Your task to perform on an android device: What's on my calendar today? Image 0: 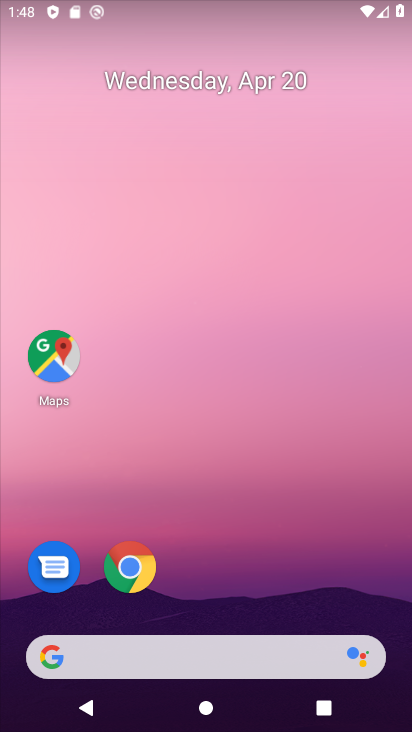
Step 0: click (295, 369)
Your task to perform on an android device: What's on my calendar today? Image 1: 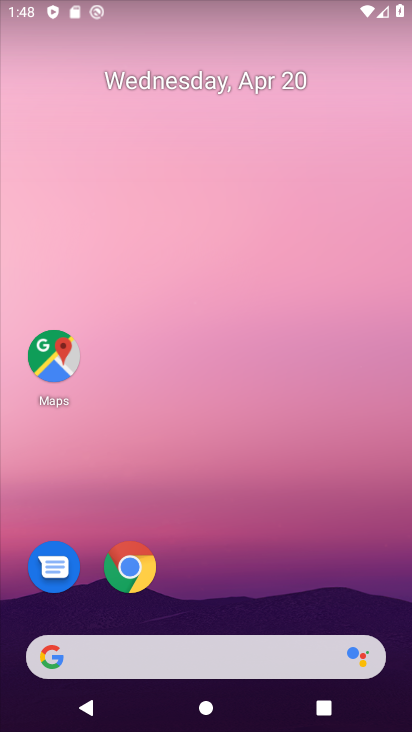
Step 1: drag from (239, 637) to (208, 168)
Your task to perform on an android device: What's on my calendar today? Image 2: 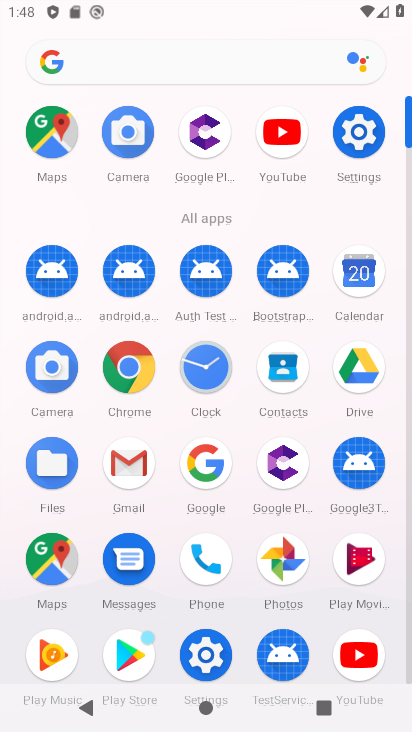
Step 2: click (351, 262)
Your task to perform on an android device: What's on my calendar today? Image 3: 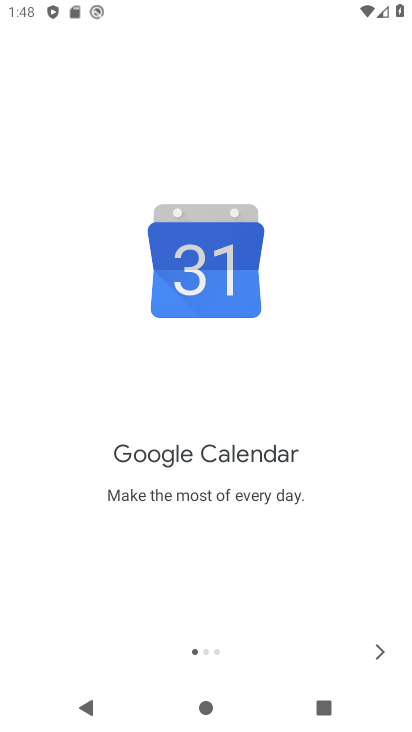
Step 3: click (379, 657)
Your task to perform on an android device: What's on my calendar today? Image 4: 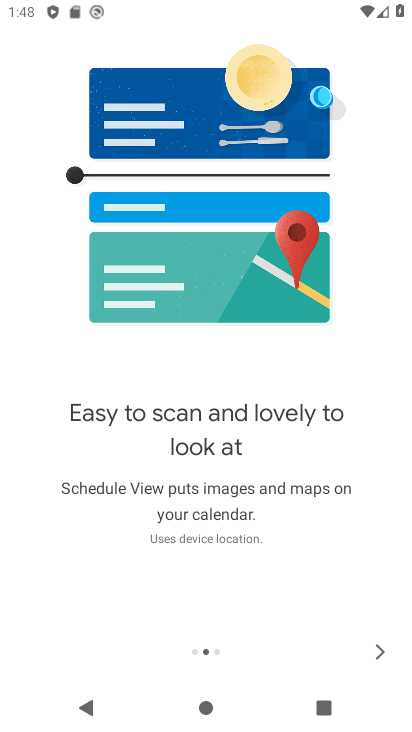
Step 4: click (383, 647)
Your task to perform on an android device: What's on my calendar today? Image 5: 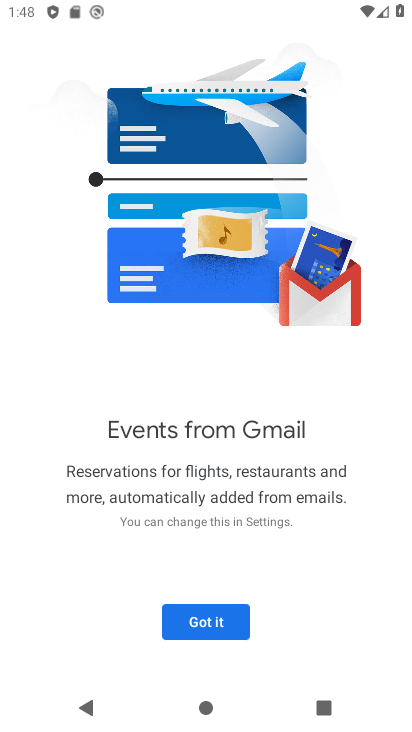
Step 5: click (215, 627)
Your task to perform on an android device: What's on my calendar today? Image 6: 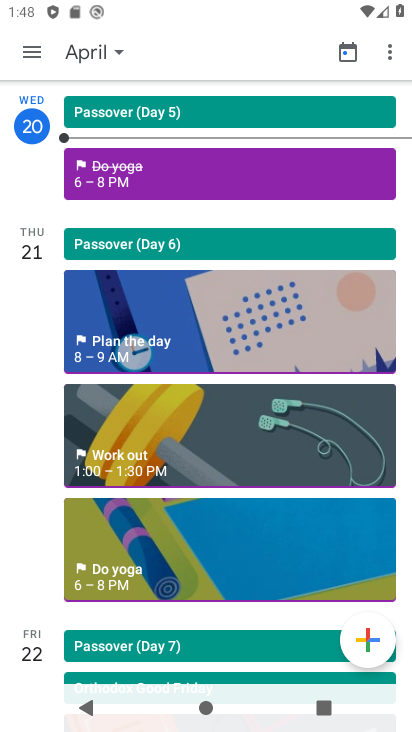
Step 6: click (34, 54)
Your task to perform on an android device: What's on my calendar today? Image 7: 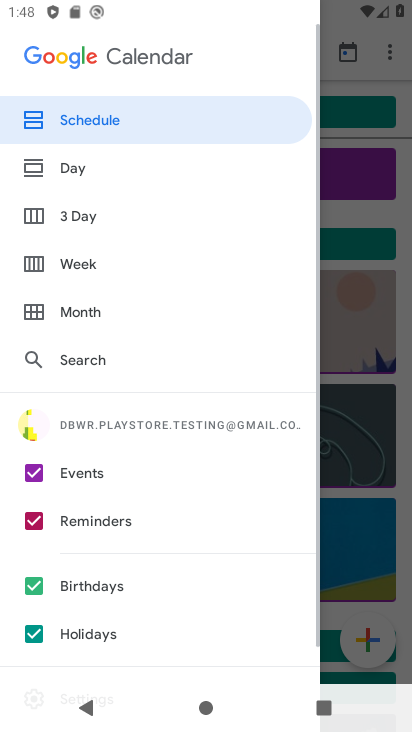
Step 7: click (81, 157)
Your task to perform on an android device: What's on my calendar today? Image 8: 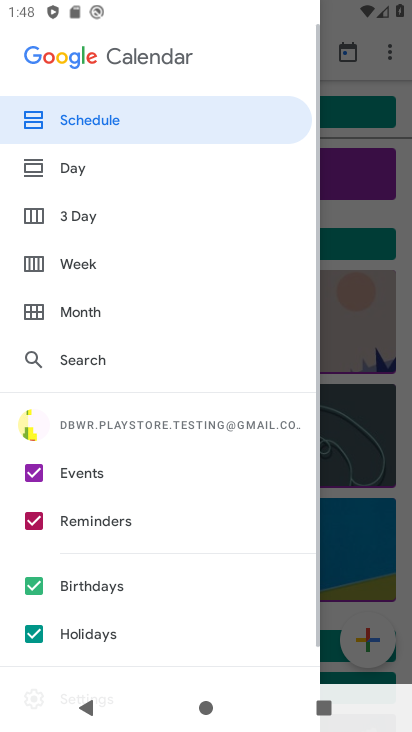
Step 8: click (111, 167)
Your task to perform on an android device: What's on my calendar today? Image 9: 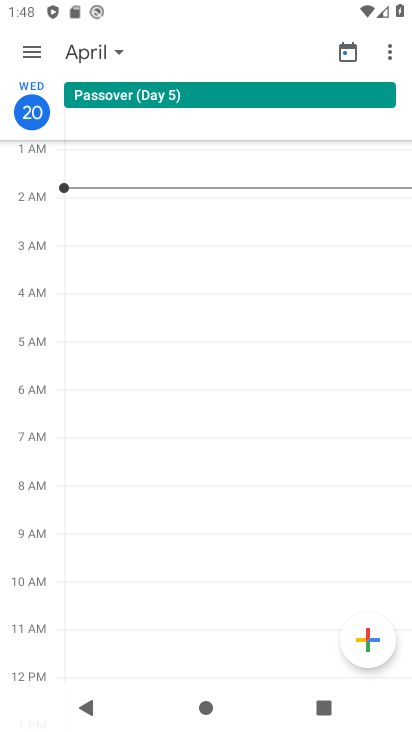
Step 9: task complete